Your task to perform on an android device: Play the last video I watched on Youtube Image 0: 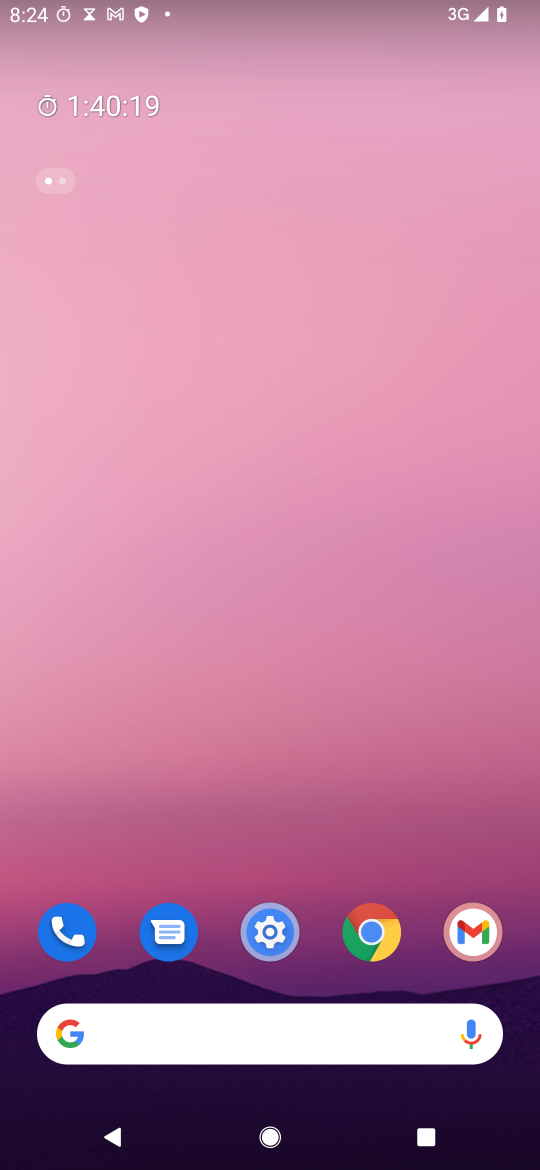
Step 0: drag from (440, 881) to (420, 98)
Your task to perform on an android device: Play the last video I watched on Youtube Image 1: 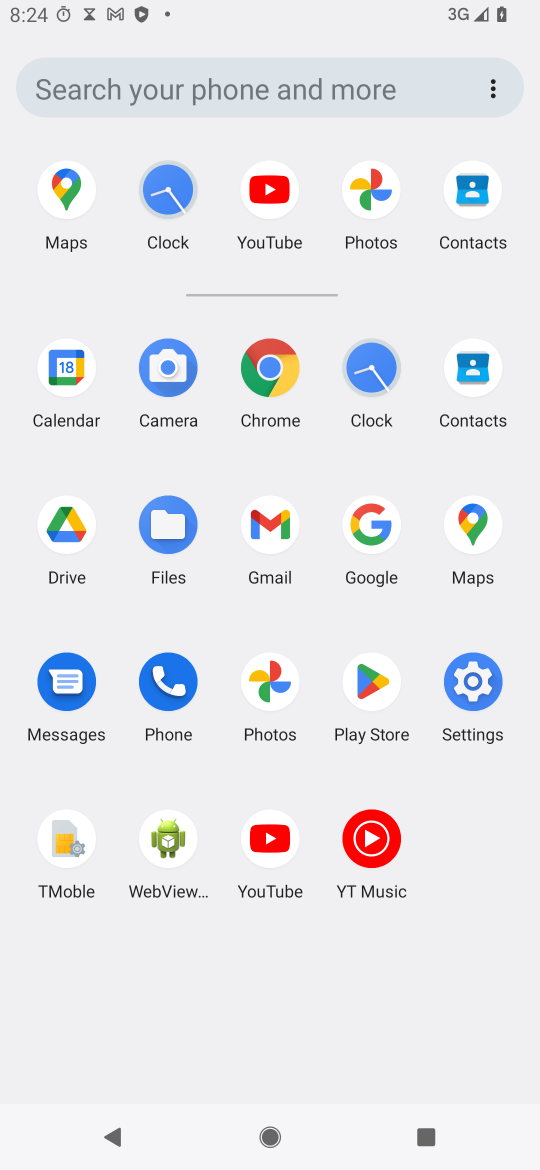
Step 1: click (270, 830)
Your task to perform on an android device: Play the last video I watched on Youtube Image 2: 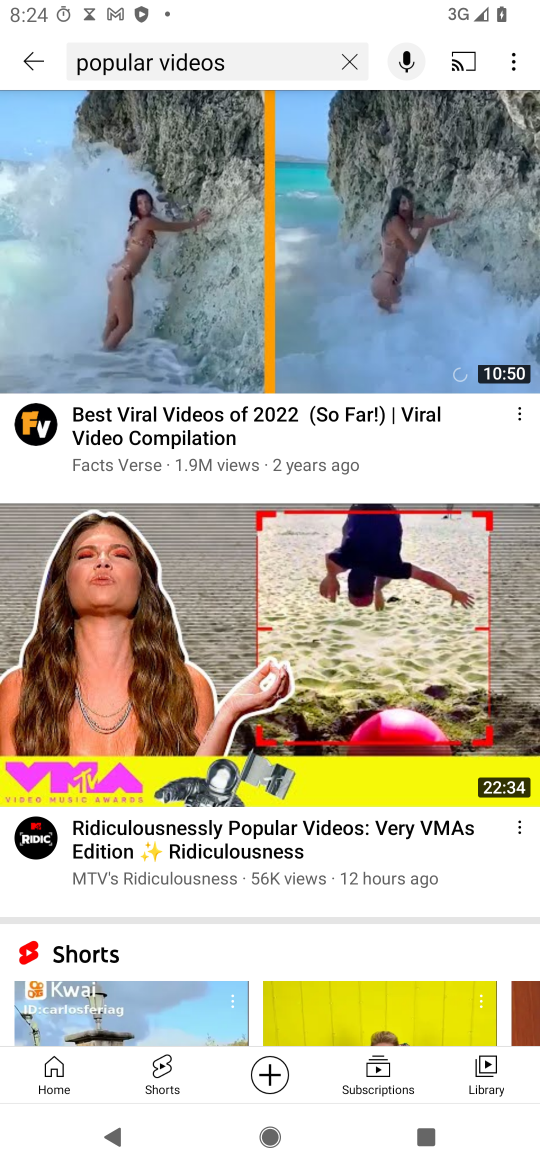
Step 2: drag from (515, 68) to (365, 291)
Your task to perform on an android device: Play the last video I watched on Youtube Image 3: 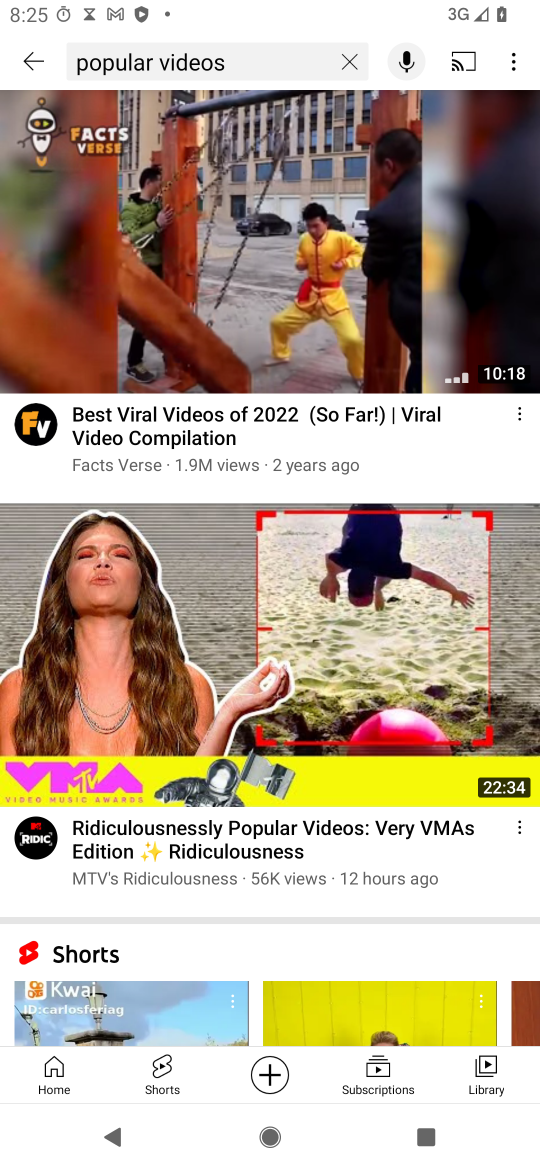
Step 3: click (510, 41)
Your task to perform on an android device: Play the last video I watched on Youtube Image 4: 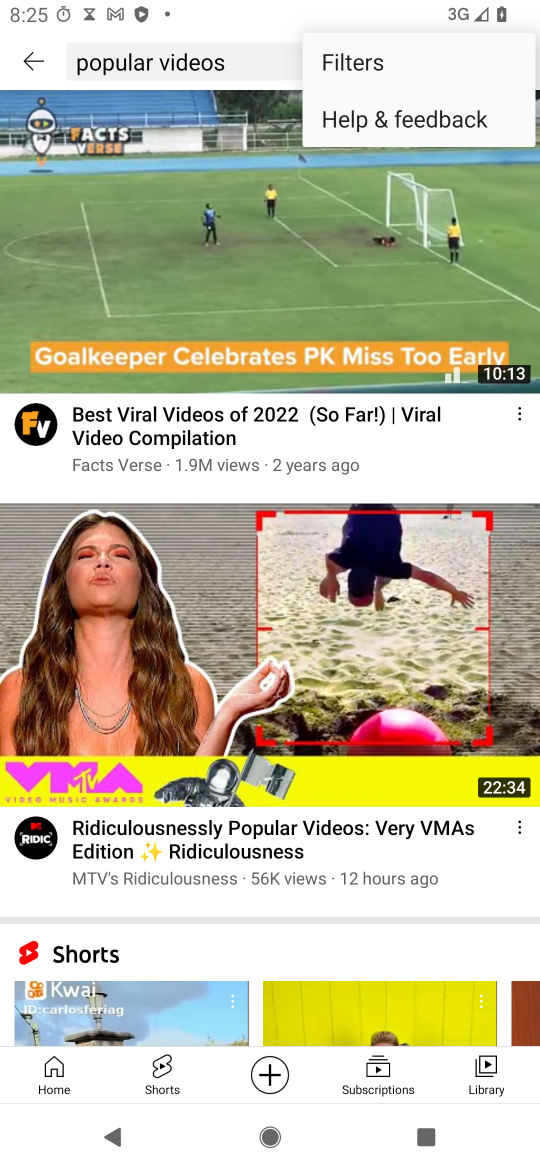
Step 4: click (497, 1061)
Your task to perform on an android device: Play the last video I watched on Youtube Image 5: 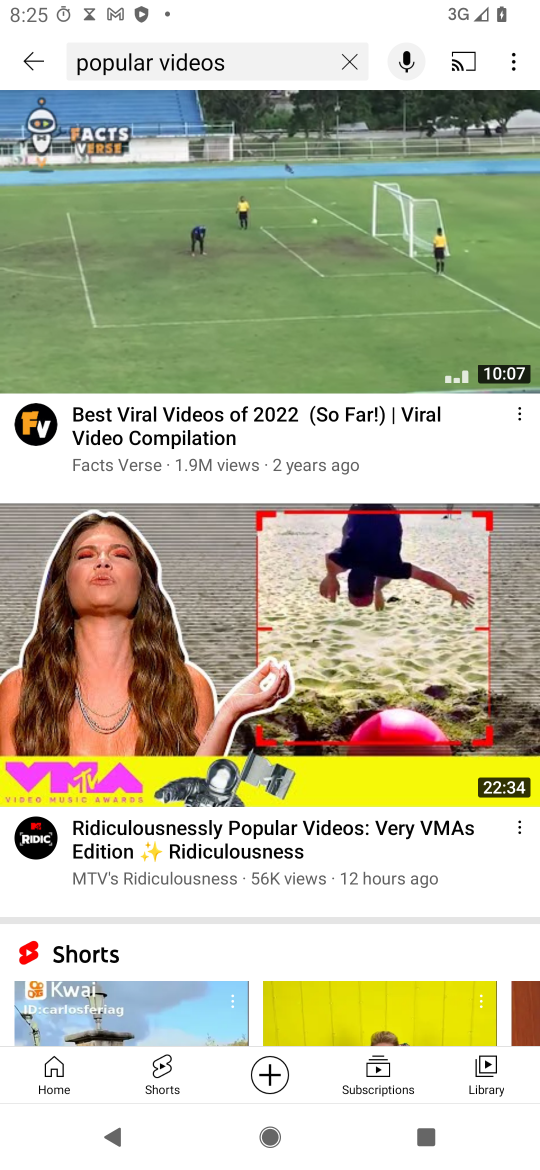
Step 5: click (495, 1066)
Your task to perform on an android device: Play the last video I watched on Youtube Image 6: 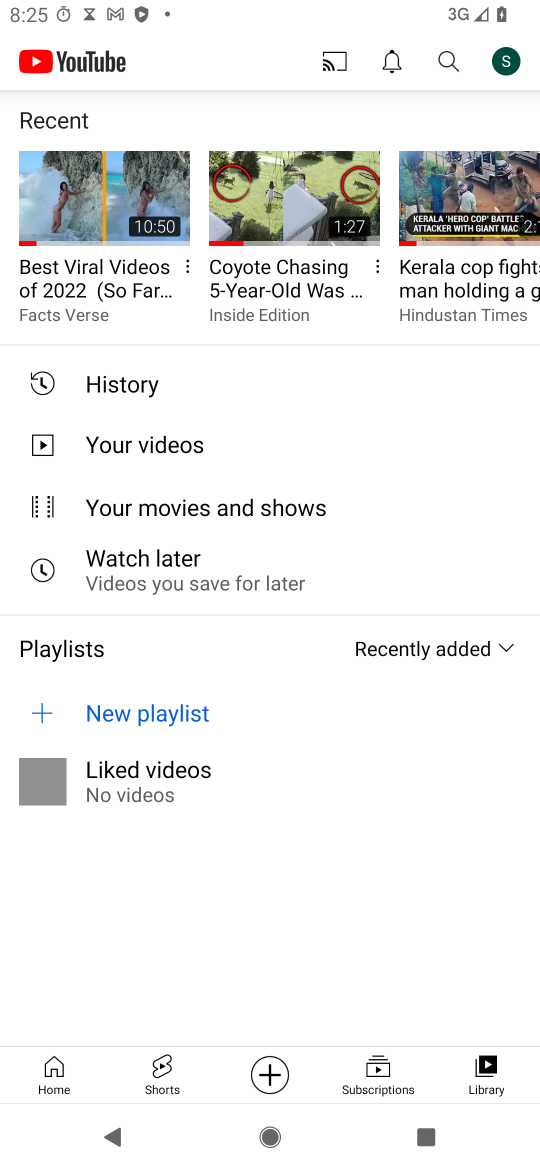
Step 6: click (75, 184)
Your task to perform on an android device: Play the last video I watched on Youtube Image 7: 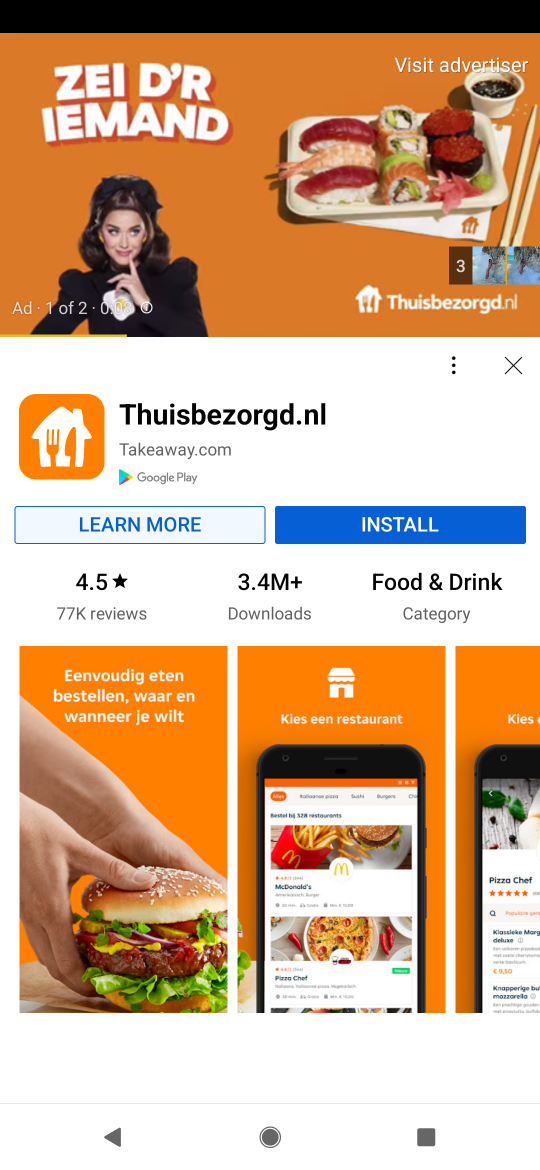
Step 7: task complete